Your task to perform on an android device: open chrome privacy settings Image 0: 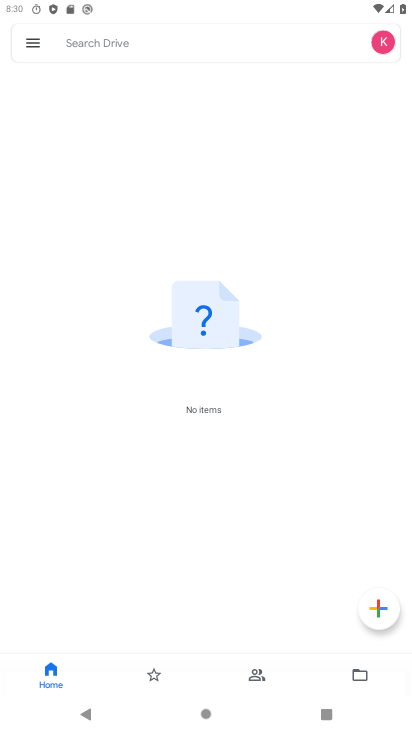
Step 0: press home button
Your task to perform on an android device: open chrome privacy settings Image 1: 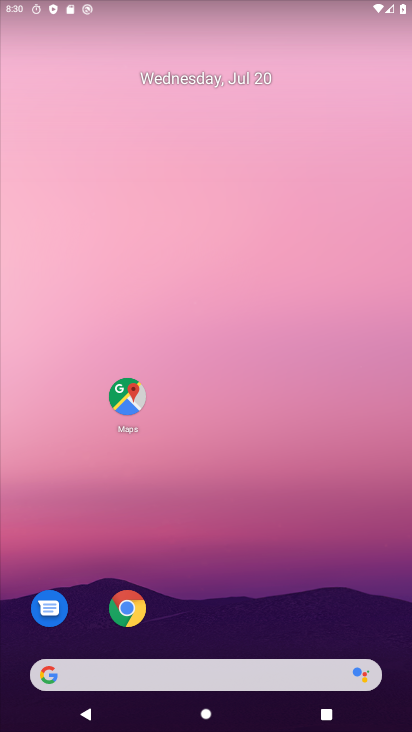
Step 1: drag from (254, 607) to (257, 146)
Your task to perform on an android device: open chrome privacy settings Image 2: 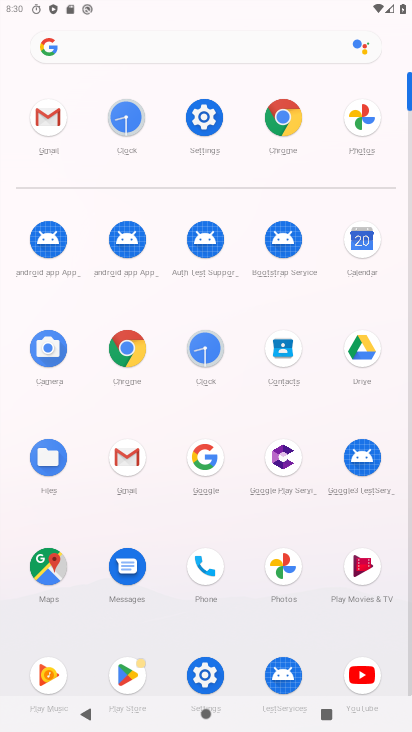
Step 2: click (136, 353)
Your task to perform on an android device: open chrome privacy settings Image 3: 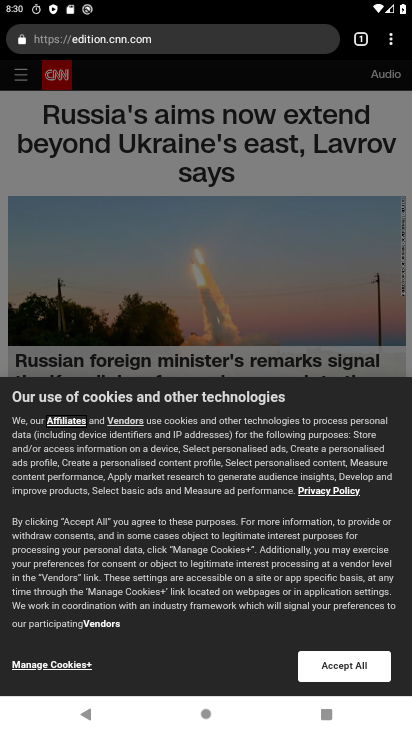
Step 3: click (393, 43)
Your task to perform on an android device: open chrome privacy settings Image 4: 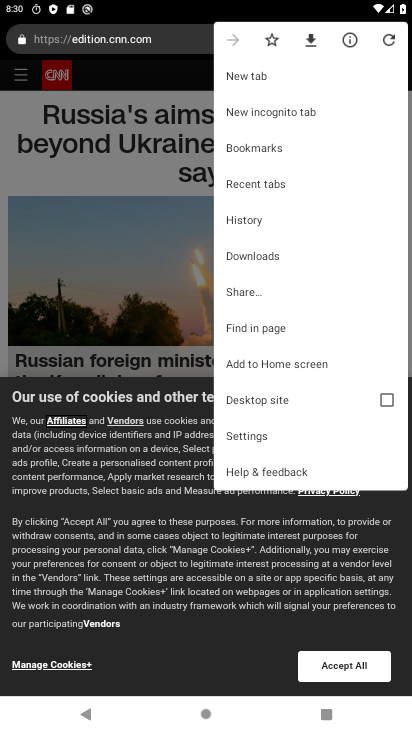
Step 4: click (282, 437)
Your task to perform on an android device: open chrome privacy settings Image 5: 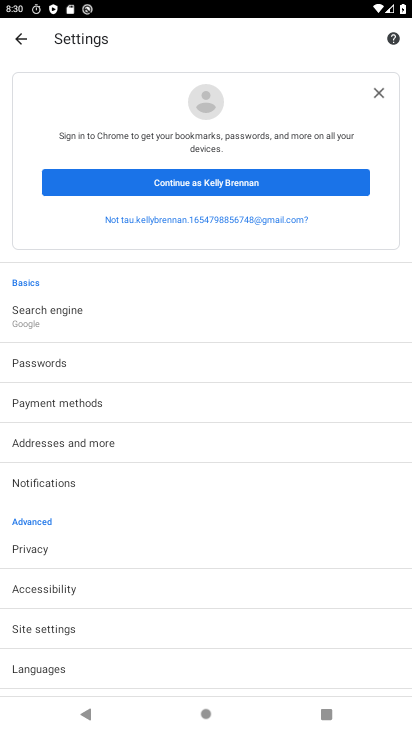
Step 5: click (84, 561)
Your task to perform on an android device: open chrome privacy settings Image 6: 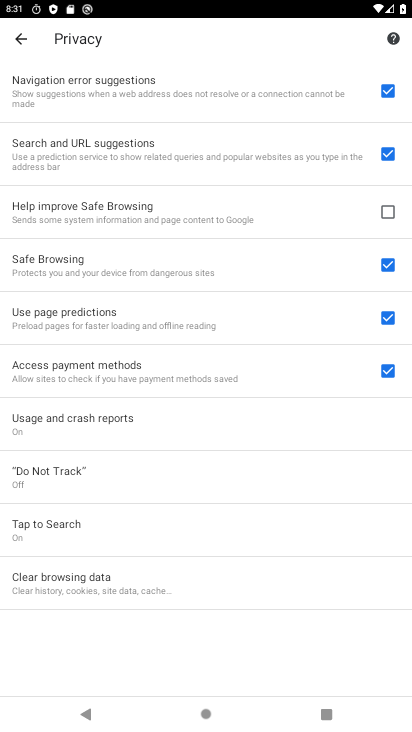
Step 6: task complete